Your task to perform on an android device: Find coffee shops on Maps Image 0: 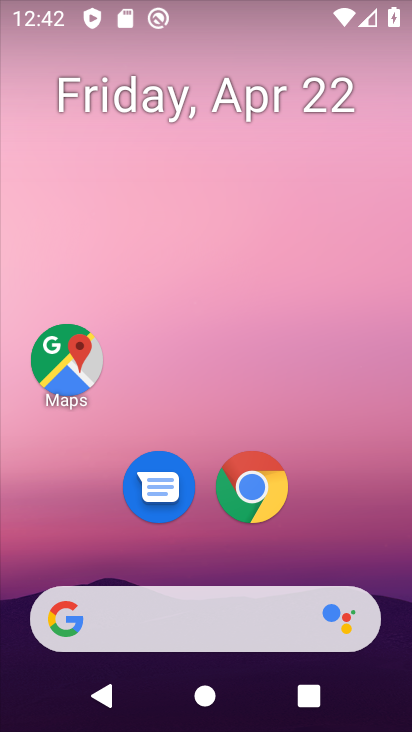
Step 0: click (52, 377)
Your task to perform on an android device: Find coffee shops on Maps Image 1: 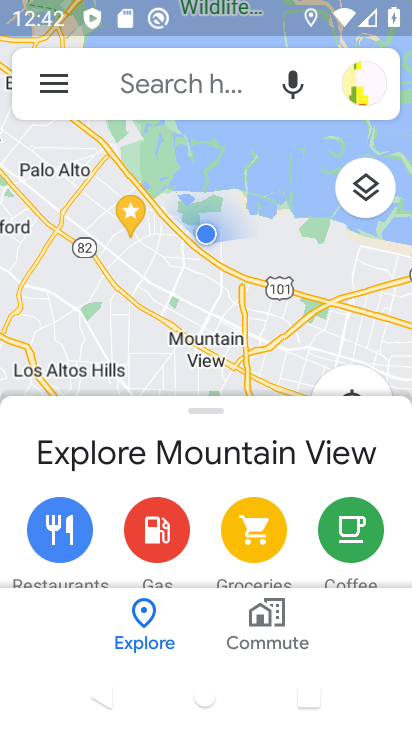
Step 1: click (193, 94)
Your task to perform on an android device: Find coffee shops on Maps Image 2: 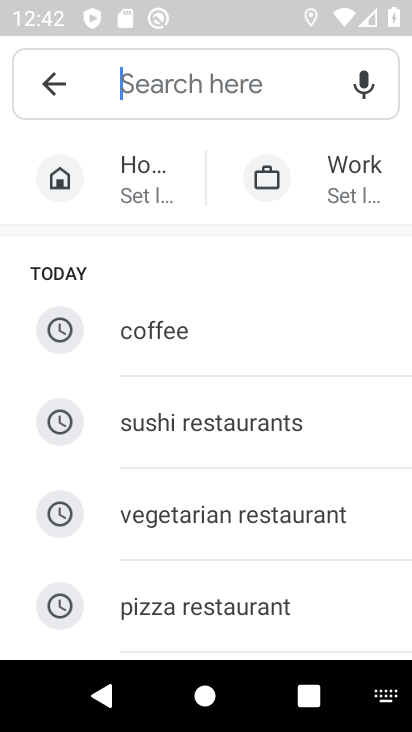
Step 2: type "coffee shops"
Your task to perform on an android device: Find coffee shops on Maps Image 3: 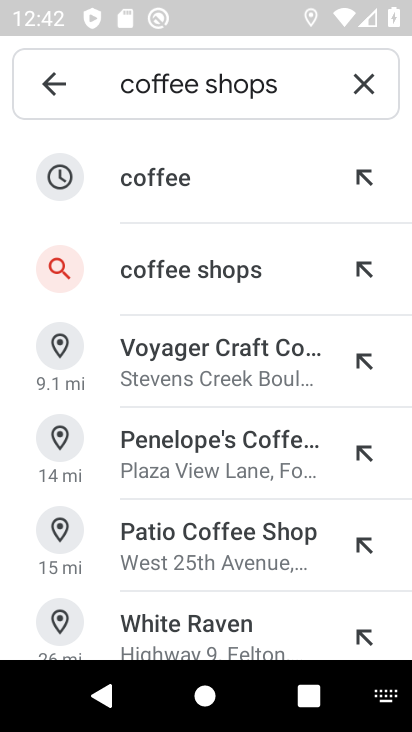
Step 3: click (166, 269)
Your task to perform on an android device: Find coffee shops on Maps Image 4: 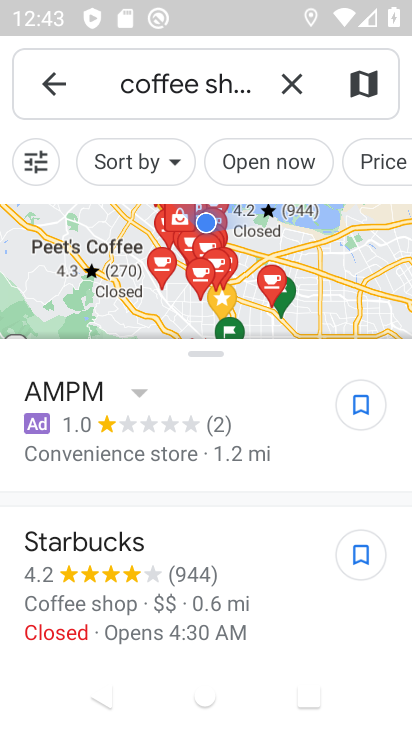
Step 4: task complete